Your task to perform on an android device: manage bookmarks in the chrome app Image 0: 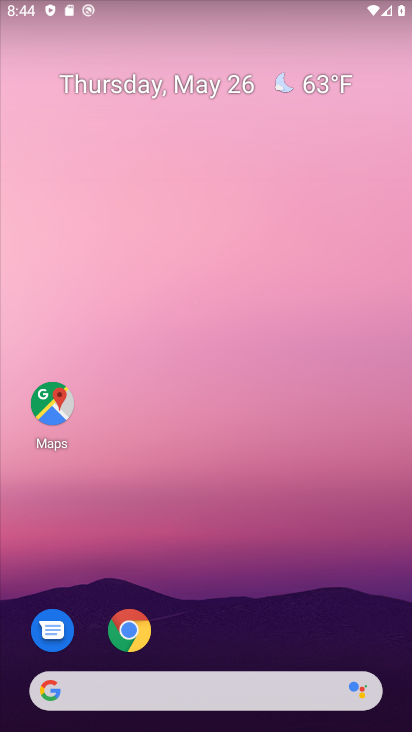
Step 0: drag from (255, 699) to (258, 168)
Your task to perform on an android device: manage bookmarks in the chrome app Image 1: 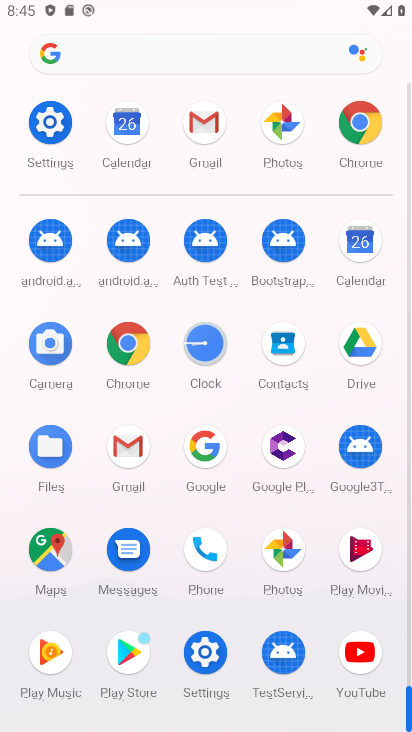
Step 1: click (343, 126)
Your task to perform on an android device: manage bookmarks in the chrome app Image 2: 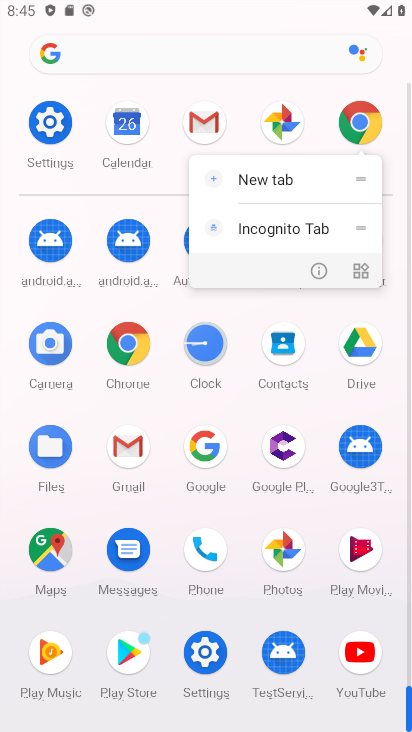
Step 2: click (370, 135)
Your task to perform on an android device: manage bookmarks in the chrome app Image 3: 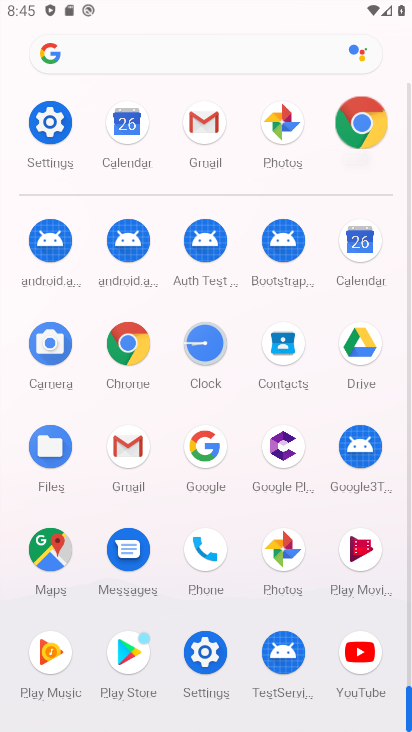
Step 3: click (377, 129)
Your task to perform on an android device: manage bookmarks in the chrome app Image 4: 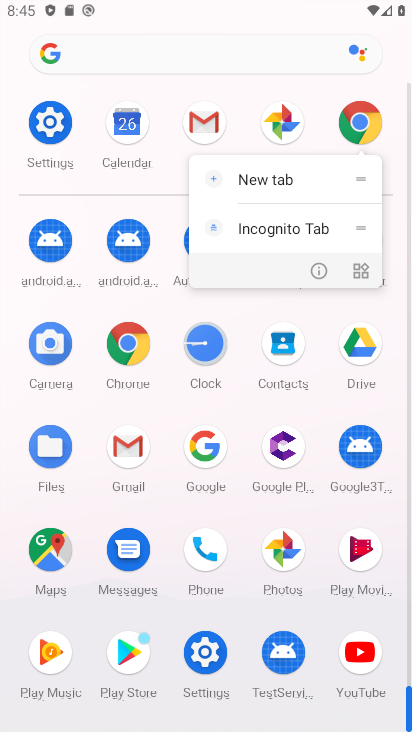
Step 4: click (381, 127)
Your task to perform on an android device: manage bookmarks in the chrome app Image 5: 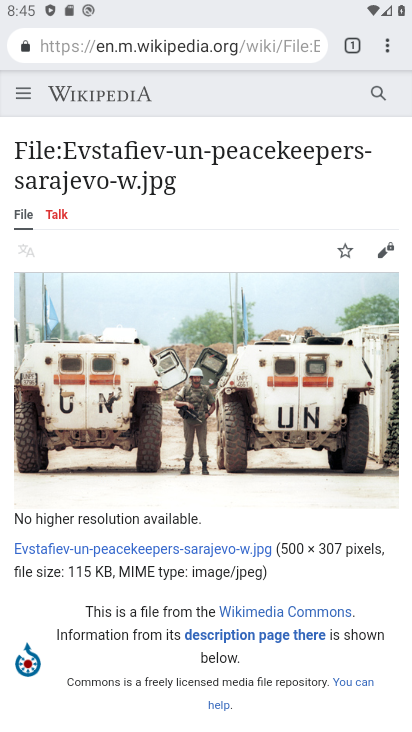
Step 5: press back button
Your task to perform on an android device: manage bookmarks in the chrome app Image 6: 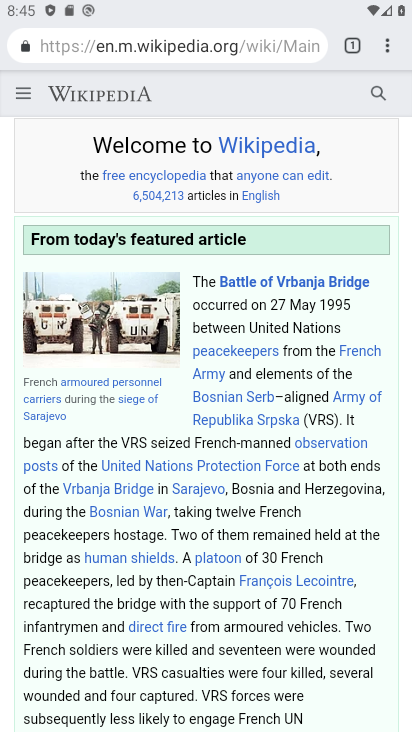
Step 6: drag from (392, 31) to (224, 170)
Your task to perform on an android device: manage bookmarks in the chrome app Image 7: 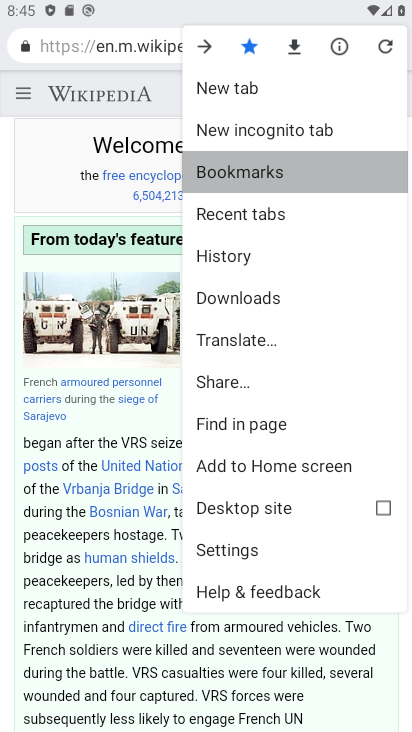
Step 7: click (233, 171)
Your task to perform on an android device: manage bookmarks in the chrome app Image 8: 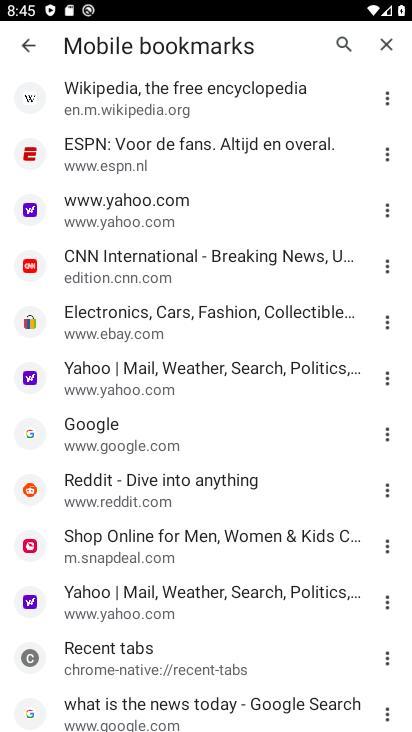
Step 8: click (384, 101)
Your task to perform on an android device: manage bookmarks in the chrome app Image 9: 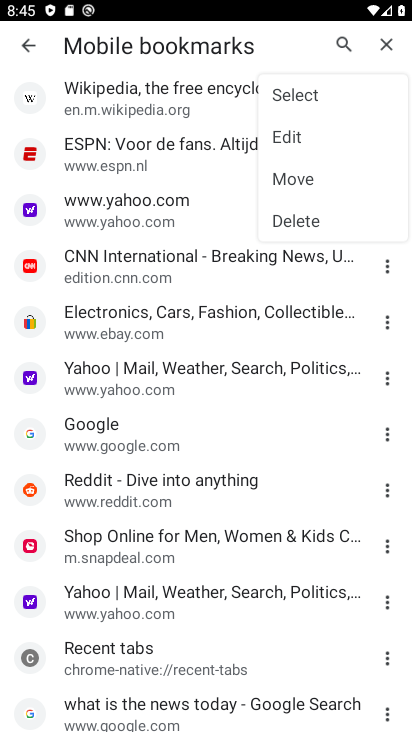
Step 9: click (306, 222)
Your task to perform on an android device: manage bookmarks in the chrome app Image 10: 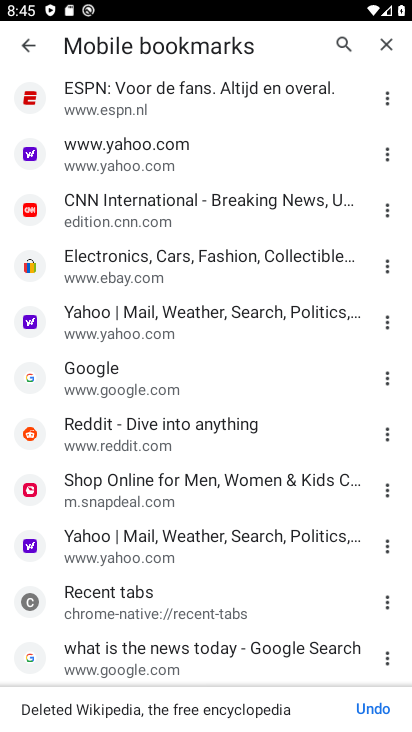
Step 10: task complete